Your task to perform on an android device: find photos in the google photos app Image 0: 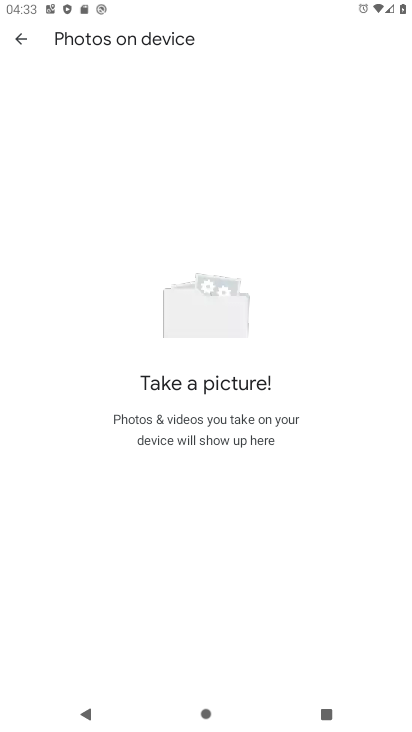
Step 0: click (29, 46)
Your task to perform on an android device: find photos in the google photos app Image 1: 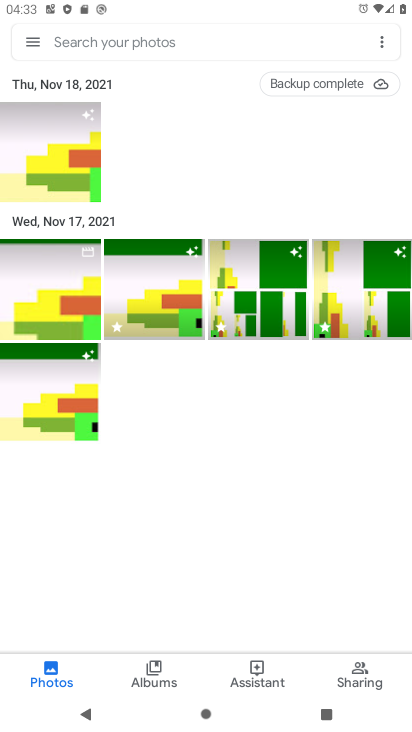
Step 1: task complete